Your task to perform on an android device: set an alarm Image 0: 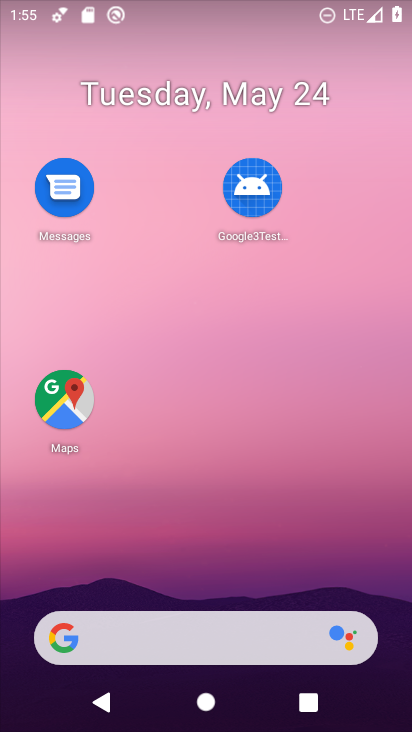
Step 0: drag from (186, 563) to (187, 20)
Your task to perform on an android device: set an alarm Image 1: 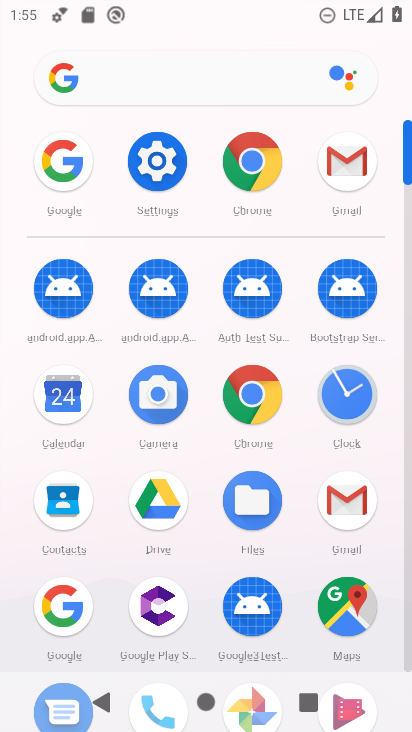
Step 1: click (349, 411)
Your task to perform on an android device: set an alarm Image 2: 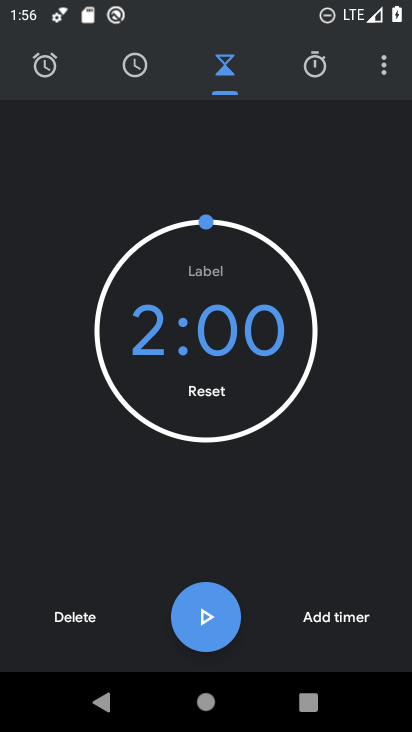
Step 2: click (33, 73)
Your task to perform on an android device: set an alarm Image 3: 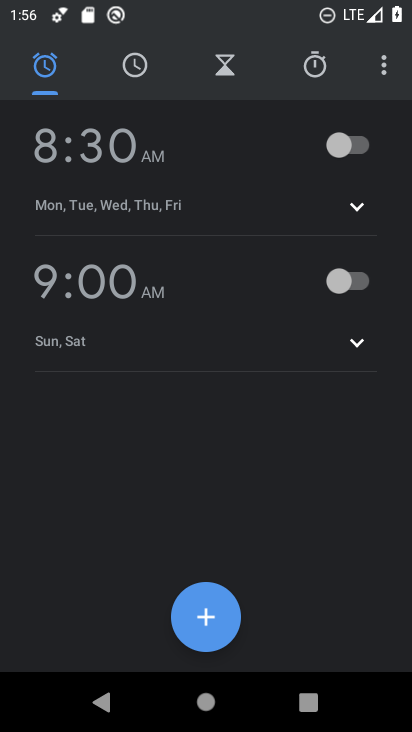
Step 3: click (367, 276)
Your task to perform on an android device: set an alarm Image 4: 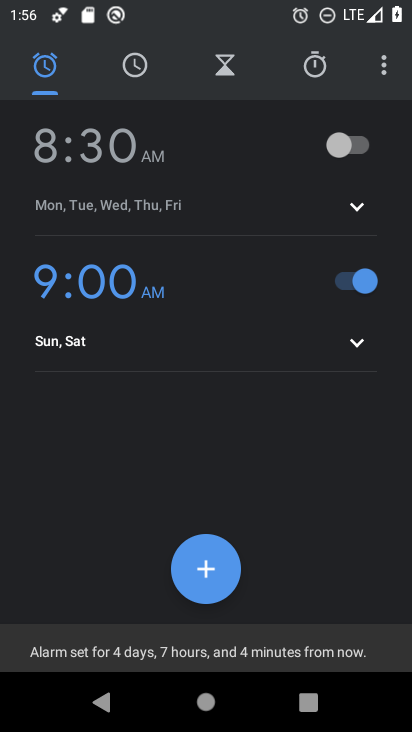
Step 4: task complete